Your task to perform on an android device: Go to calendar. Show me events next week Image 0: 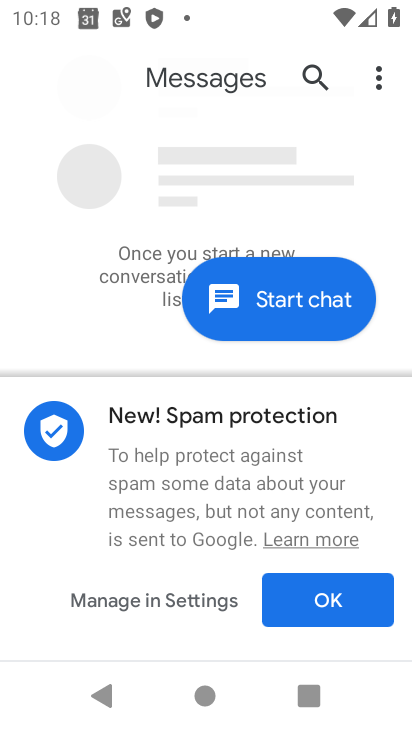
Step 0: press home button
Your task to perform on an android device: Go to calendar. Show me events next week Image 1: 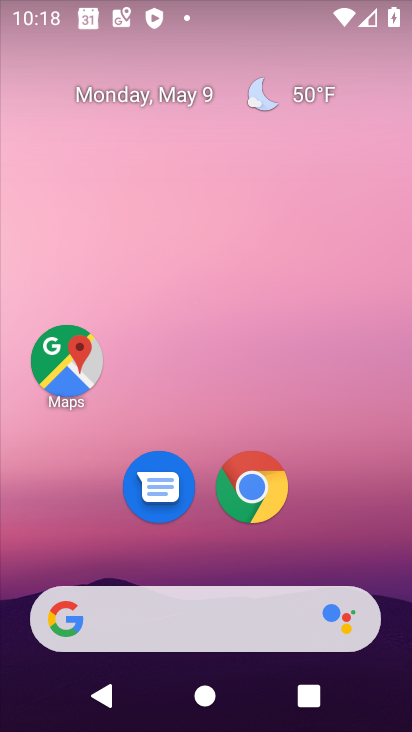
Step 1: drag from (45, 552) to (176, 231)
Your task to perform on an android device: Go to calendar. Show me events next week Image 2: 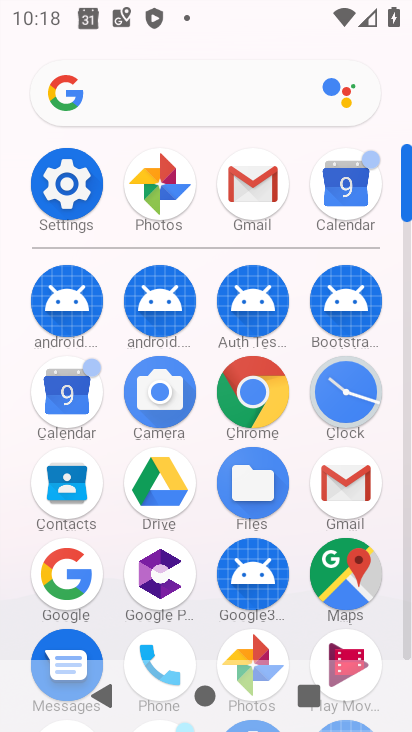
Step 2: click (70, 392)
Your task to perform on an android device: Go to calendar. Show me events next week Image 3: 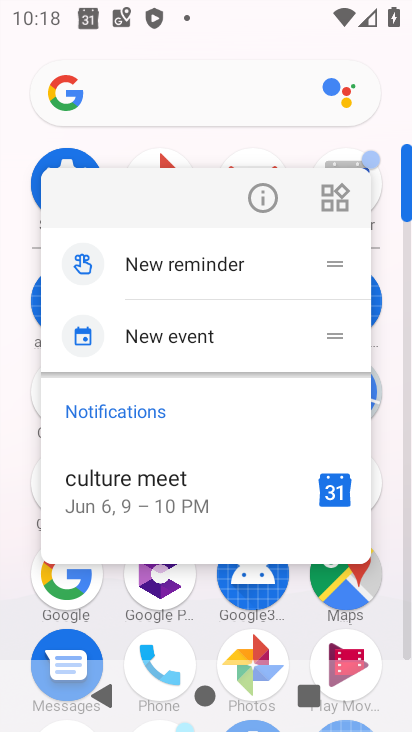
Step 3: click (265, 198)
Your task to perform on an android device: Go to calendar. Show me events next week Image 4: 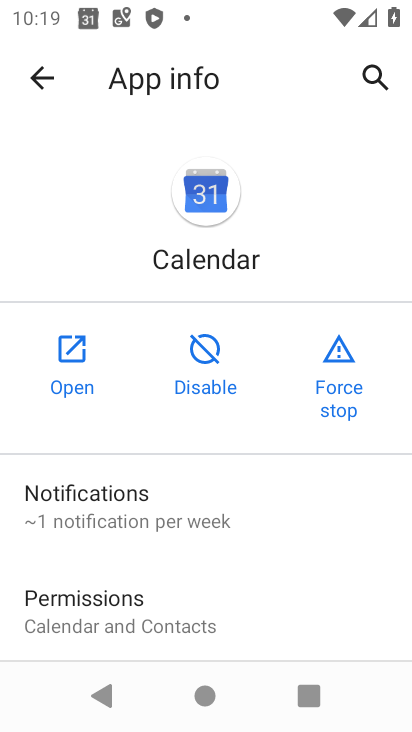
Step 4: click (72, 347)
Your task to perform on an android device: Go to calendar. Show me events next week Image 5: 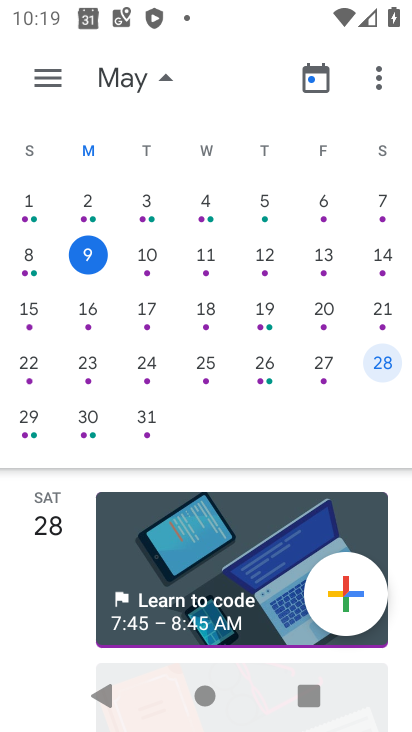
Step 5: click (154, 247)
Your task to perform on an android device: Go to calendar. Show me events next week Image 6: 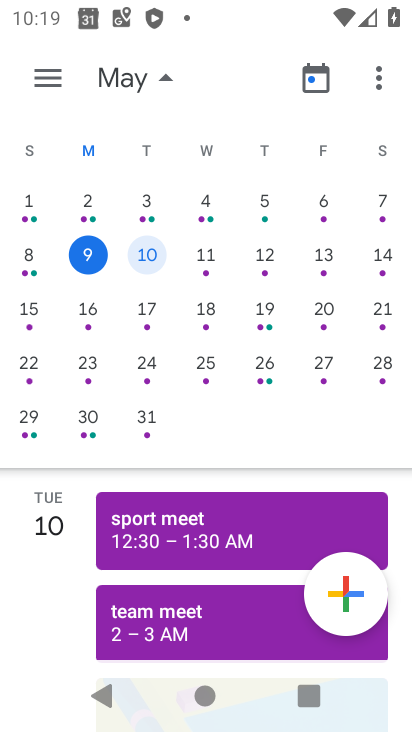
Step 6: click (200, 257)
Your task to perform on an android device: Go to calendar. Show me events next week Image 7: 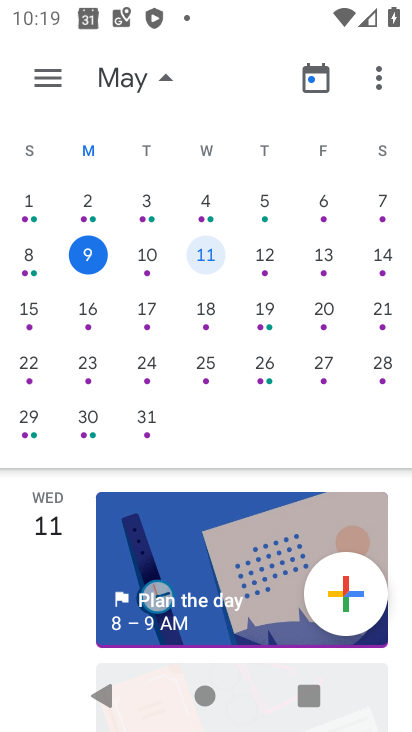
Step 7: click (316, 259)
Your task to perform on an android device: Go to calendar. Show me events next week Image 8: 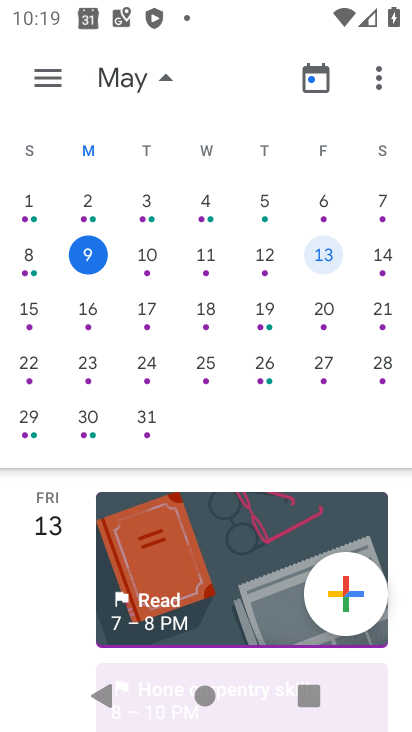
Step 8: task complete